Your task to perform on an android device: clear all cookies in the chrome app Image 0: 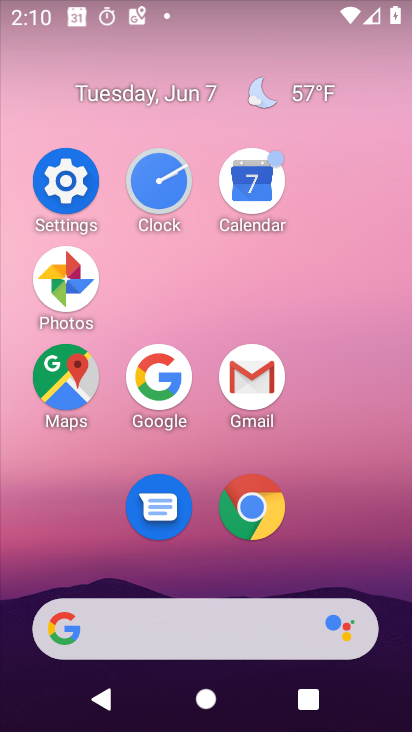
Step 0: click (241, 507)
Your task to perform on an android device: clear all cookies in the chrome app Image 1: 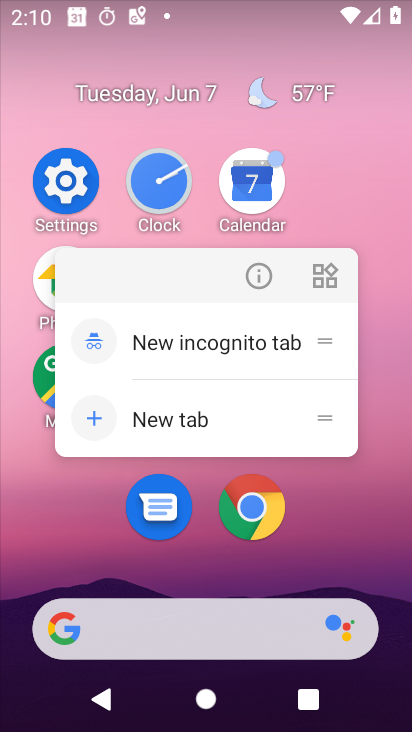
Step 1: click (263, 520)
Your task to perform on an android device: clear all cookies in the chrome app Image 2: 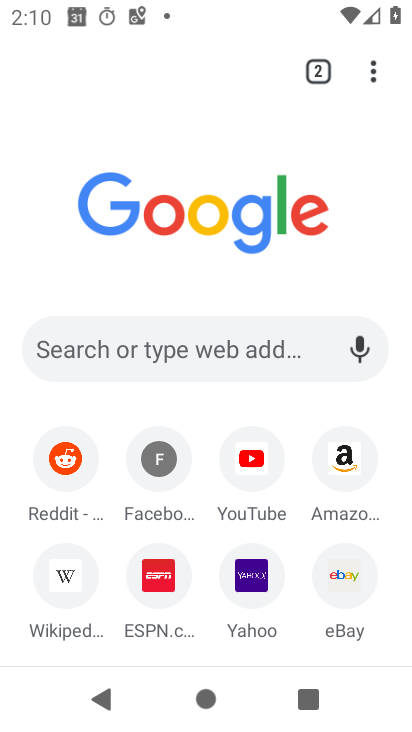
Step 2: click (386, 59)
Your task to perform on an android device: clear all cookies in the chrome app Image 3: 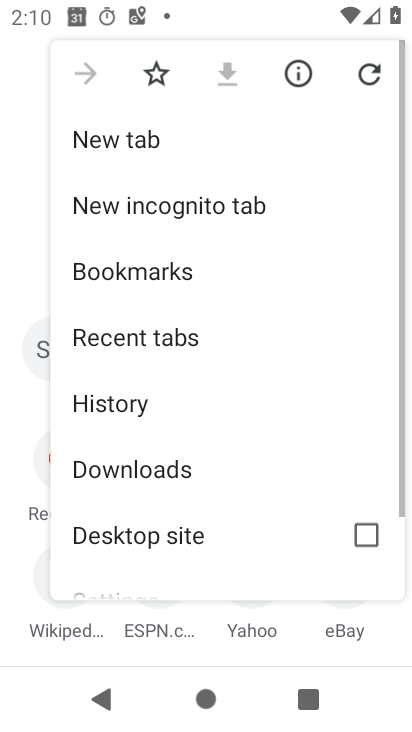
Step 3: drag from (276, 516) to (347, 147)
Your task to perform on an android device: clear all cookies in the chrome app Image 4: 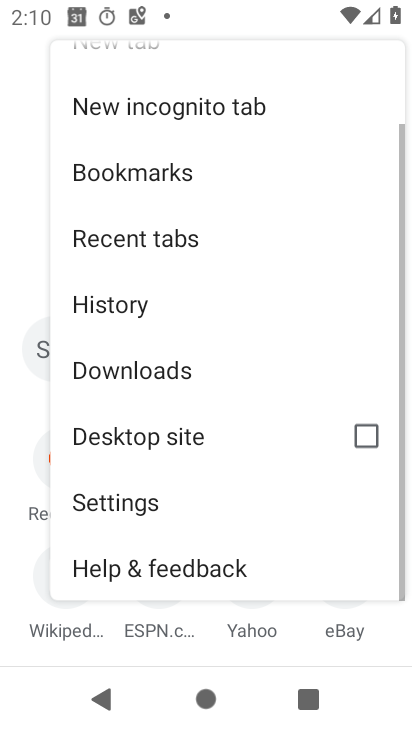
Step 4: click (201, 488)
Your task to perform on an android device: clear all cookies in the chrome app Image 5: 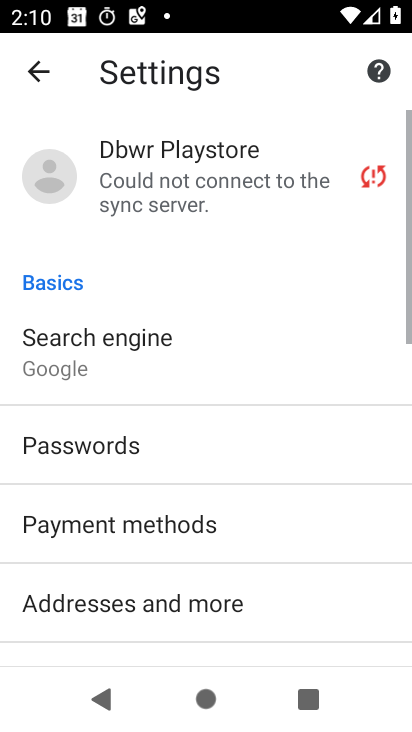
Step 5: drag from (201, 488) to (242, 193)
Your task to perform on an android device: clear all cookies in the chrome app Image 6: 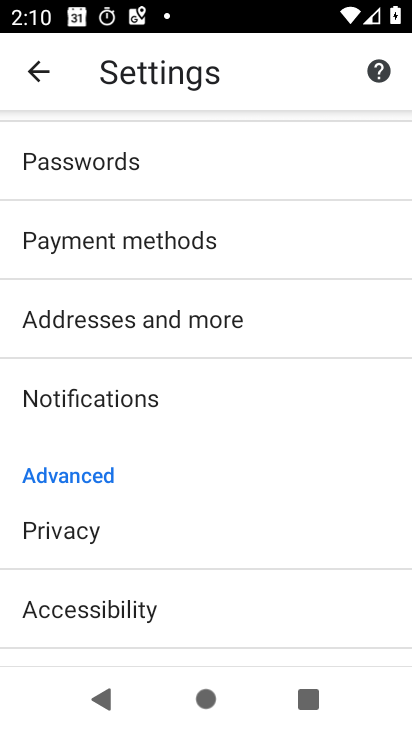
Step 6: drag from (173, 557) to (220, 165)
Your task to perform on an android device: clear all cookies in the chrome app Image 7: 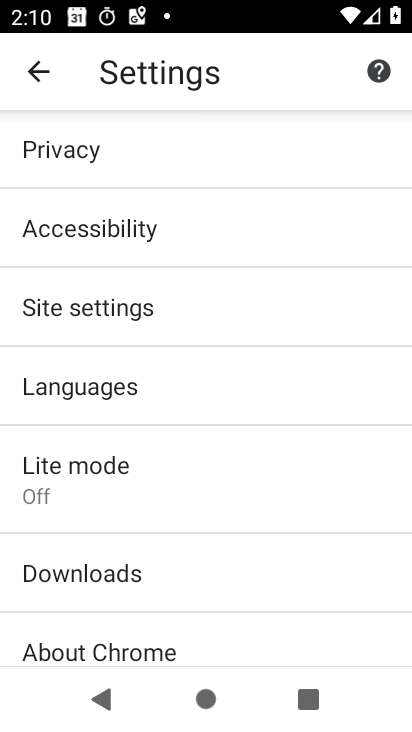
Step 7: drag from (205, 544) to (241, 207)
Your task to perform on an android device: clear all cookies in the chrome app Image 8: 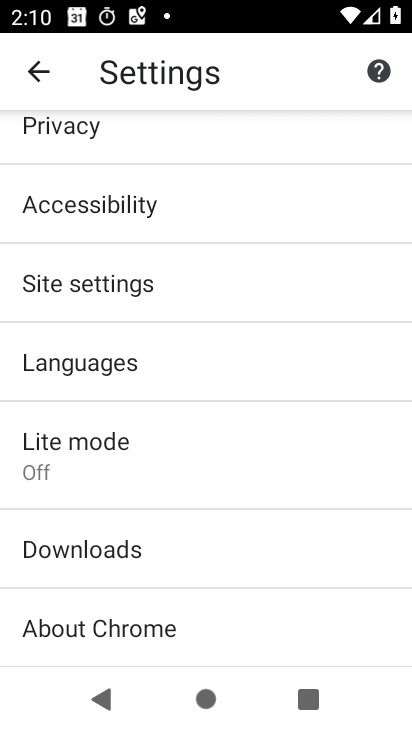
Step 8: click (241, 143)
Your task to perform on an android device: clear all cookies in the chrome app Image 9: 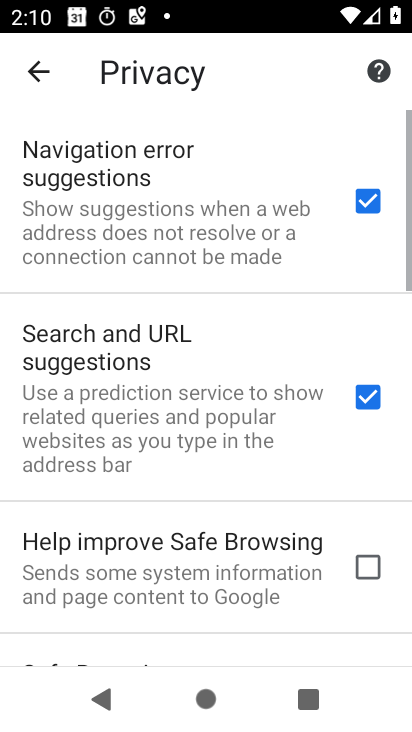
Step 9: drag from (282, 583) to (348, 77)
Your task to perform on an android device: clear all cookies in the chrome app Image 10: 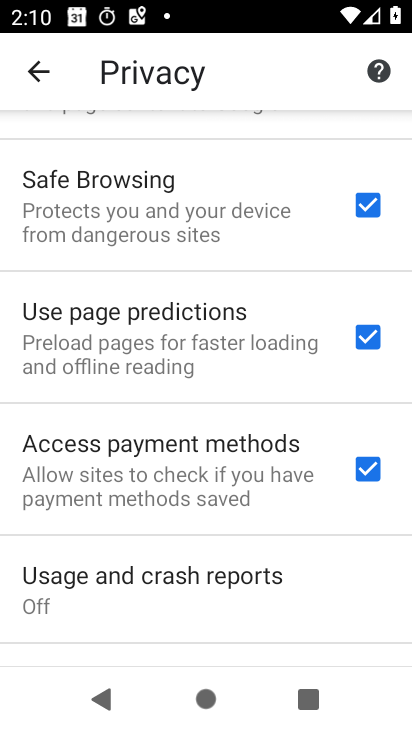
Step 10: drag from (94, 583) to (179, 138)
Your task to perform on an android device: clear all cookies in the chrome app Image 11: 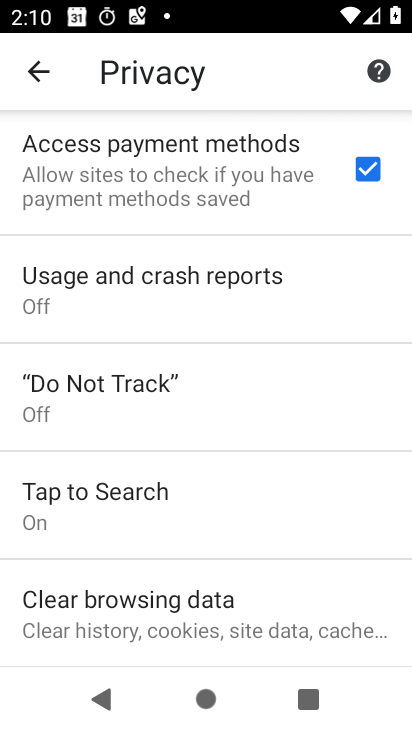
Step 11: click (220, 606)
Your task to perform on an android device: clear all cookies in the chrome app Image 12: 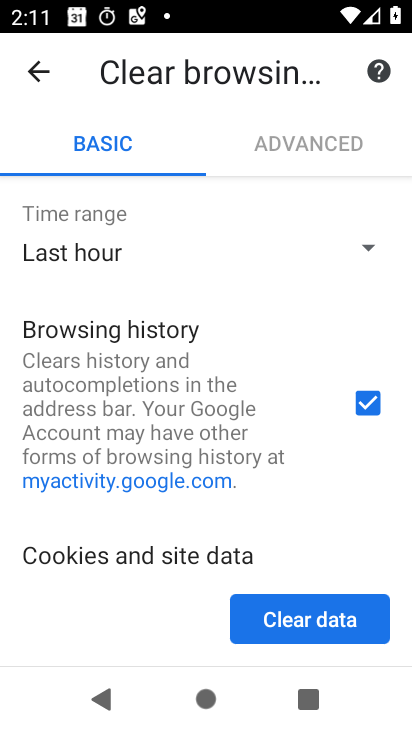
Step 12: drag from (309, 577) to (278, 253)
Your task to perform on an android device: clear all cookies in the chrome app Image 13: 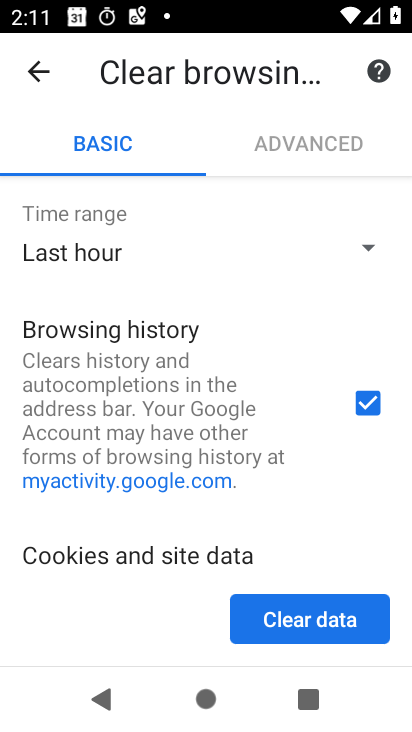
Step 13: drag from (304, 530) to (316, 194)
Your task to perform on an android device: clear all cookies in the chrome app Image 14: 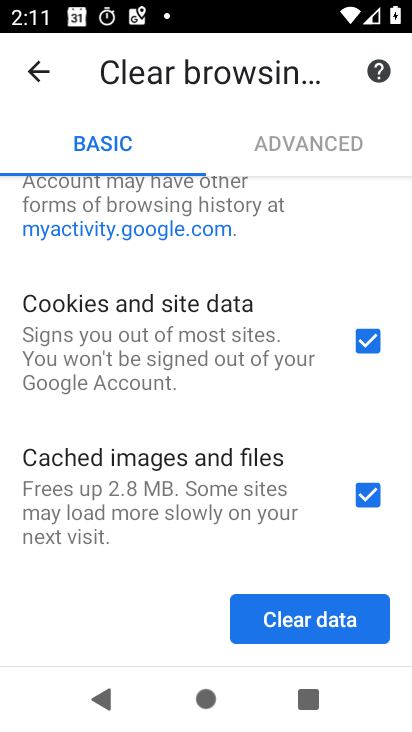
Step 14: drag from (333, 497) to (320, 253)
Your task to perform on an android device: clear all cookies in the chrome app Image 15: 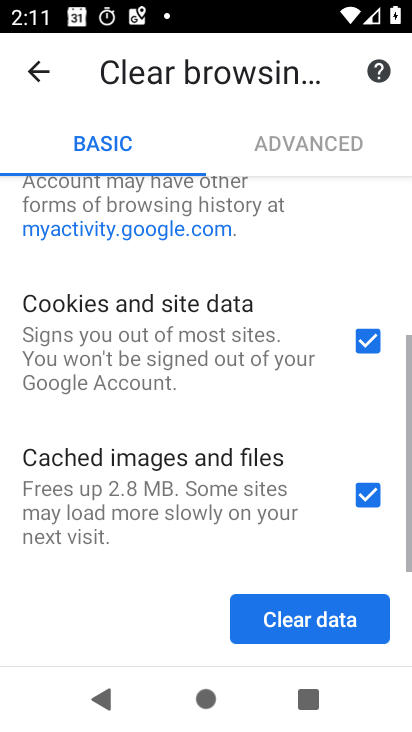
Step 15: click (334, 629)
Your task to perform on an android device: clear all cookies in the chrome app Image 16: 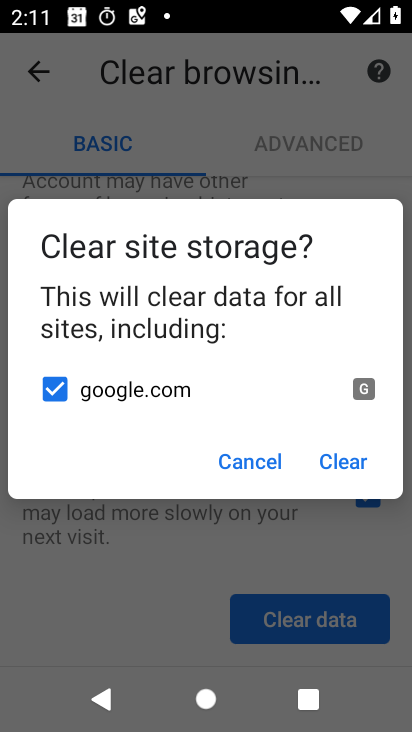
Step 16: click (331, 456)
Your task to perform on an android device: clear all cookies in the chrome app Image 17: 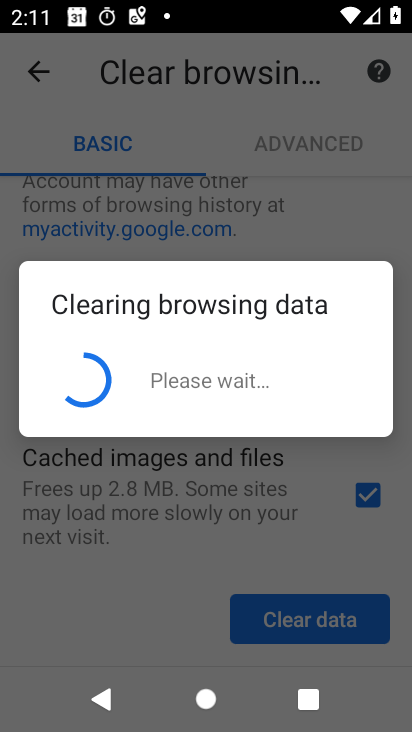
Step 17: task complete